Your task to perform on an android device: turn on sleep mode Image 0: 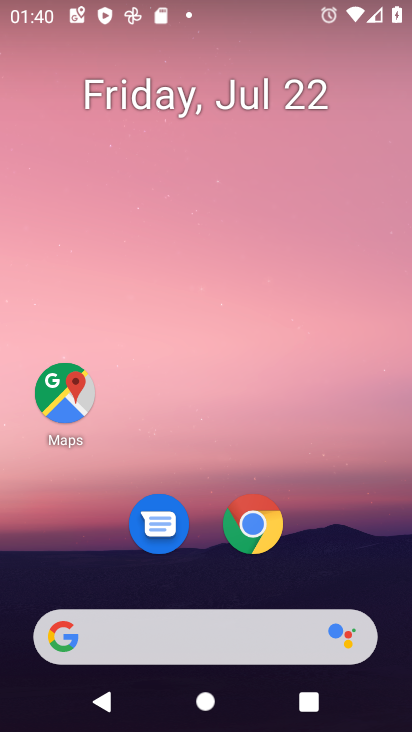
Step 0: drag from (200, 637) to (317, 52)
Your task to perform on an android device: turn on sleep mode Image 1: 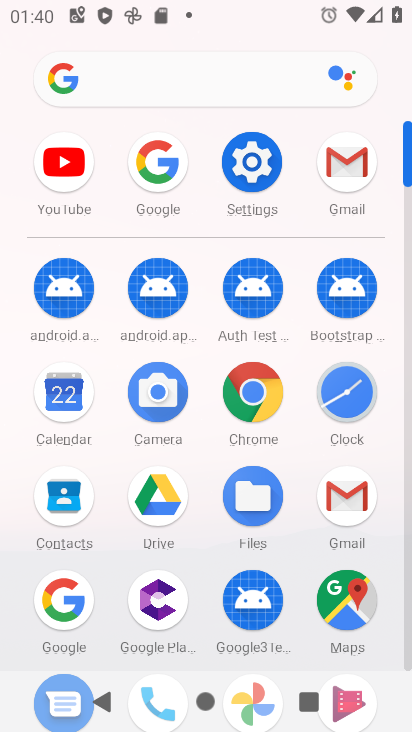
Step 1: click (258, 177)
Your task to perform on an android device: turn on sleep mode Image 2: 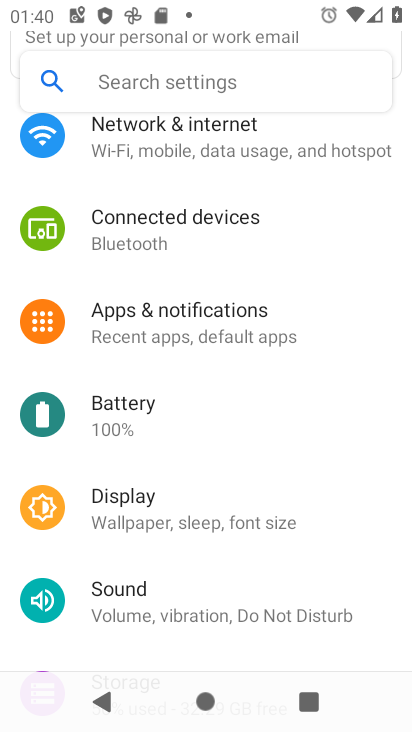
Step 2: click (154, 509)
Your task to perform on an android device: turn on sleep mode Image 3: 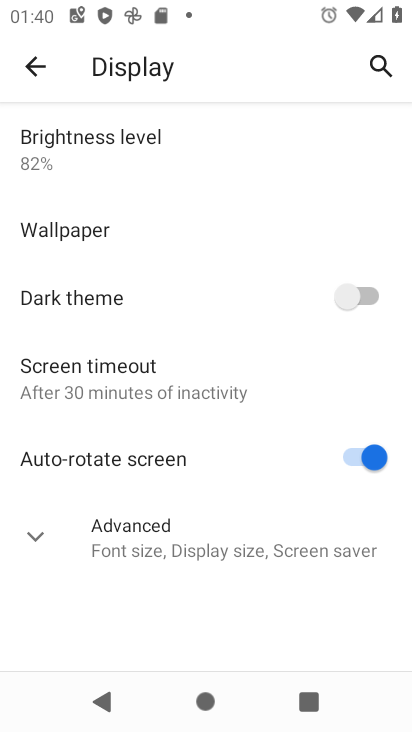
Step 3: task complete